Your task to perform on an android device: add a label to a message in the gmail app Image 0: 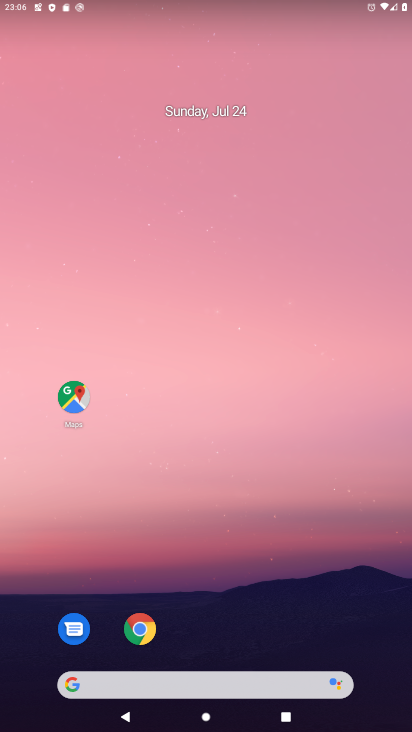
Step 0: drag from (200, 625) to (310, 0)
Your task to perform on an android device: add a label to a message in the gmail app Image 1: 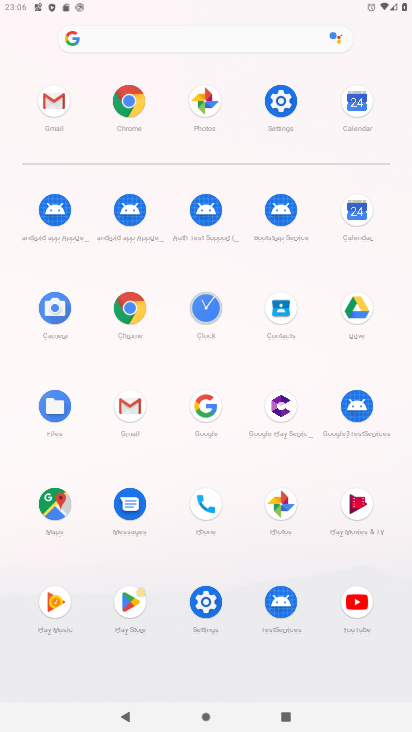
Step 1: click (130, 398)
Your task to perform on an android device: add a label to a message in the gmail app Image 2: 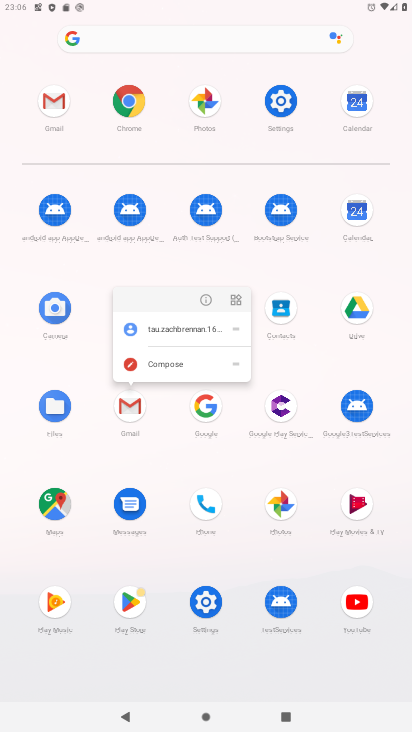
Step 2: click (201, 292)
Your task to perform on an android device: add a label to a message in the gmail app Image 3: 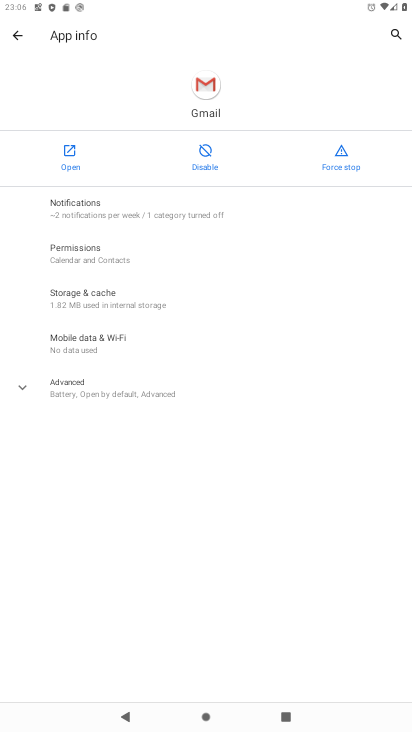
Step 3: click (71, 155)
Your task to perform on an android device: add a label to a message in the gmail app Image 4: 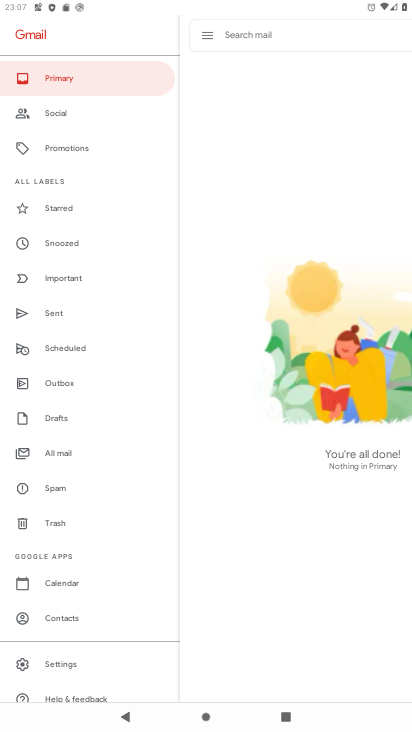
Step 4: click (345, 511)
Your task to perform on an android device: add a label to a message in the gmail app Image 5: 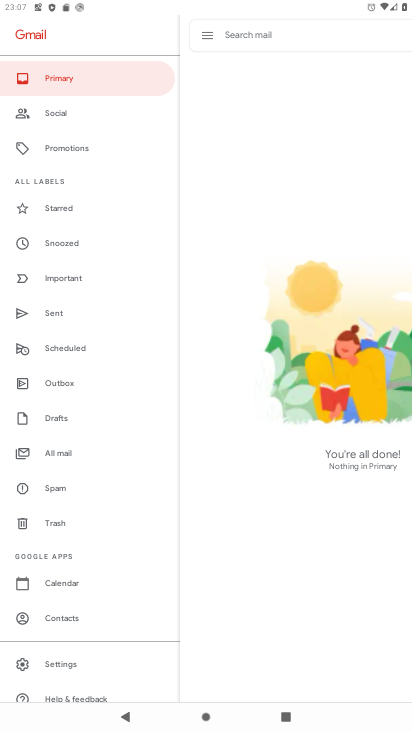
Step 5: drag from (321, 83) to (319, 425)
Your task to perform on an android device: add a label to a message in the gmail app Image 6: 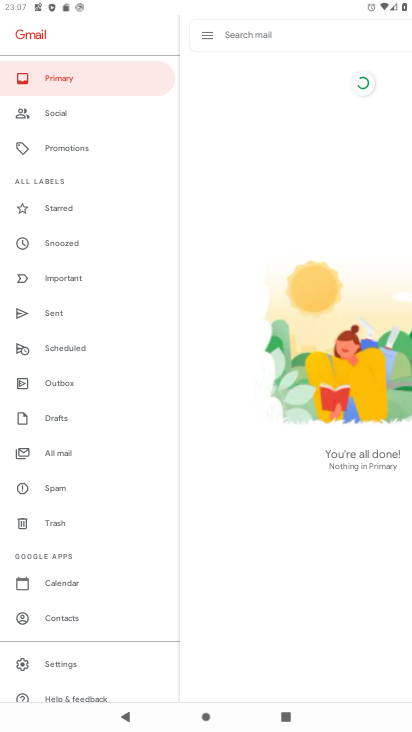
Step 6: click (264, 122)
Your task to perform on an android device: add a label to a message in the gmail app Image 7: 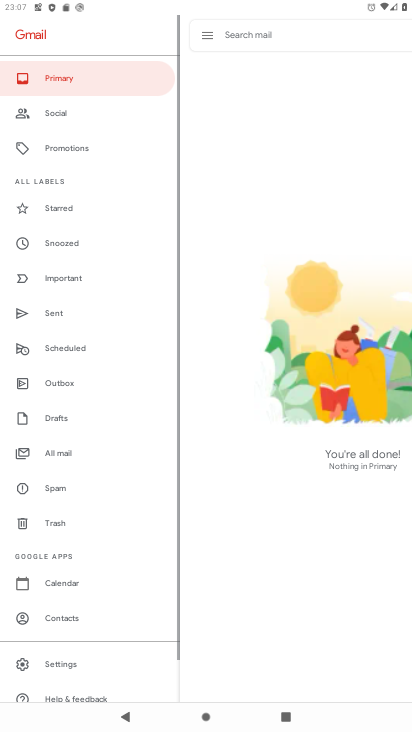
Step 7: click (196, 33)
Your task to perform on an android device: add a label to a message in the gmail app Image 8: 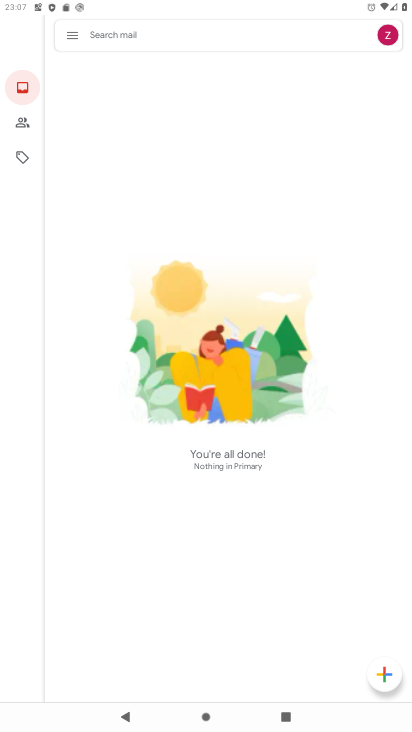
Step 8: drag from (176, 192) to (190, 422)
Your task to perform on an android device: add a label to a message in the gmail app Image 9: 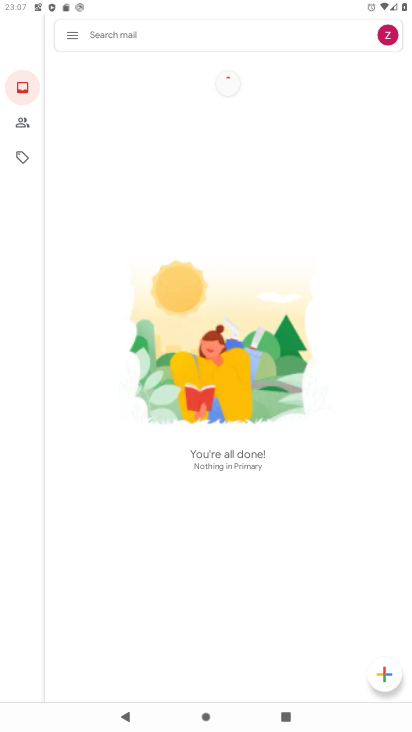
Step 9: click (261, 224)
Your task to perform on an android device: add a label to a message in the gmail app Image 10: 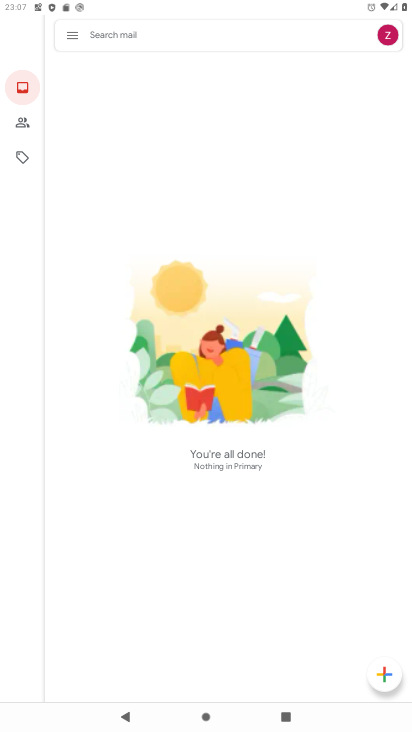
Step 10: task complete